Your task to perform on an android device: manage bookmarks in the chrome app Image 0: 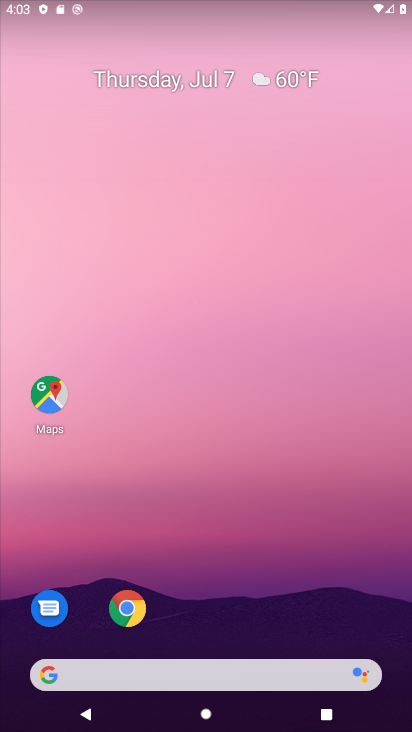
Step 0: click (330, 553)
Your task to perform on an android device: manage bookmarks in the chrome app Image 1: 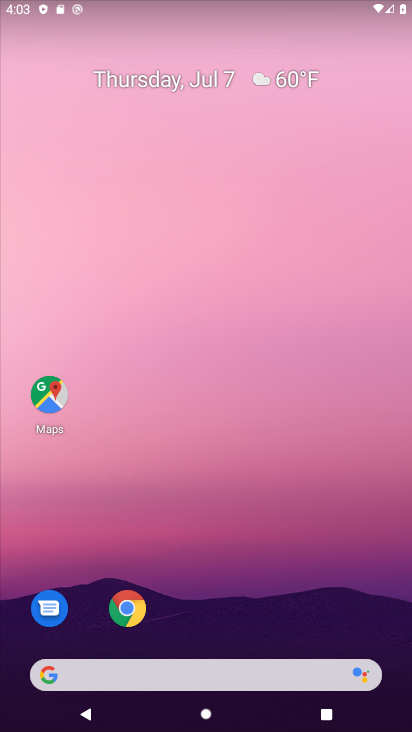
Step 1: click (138, 609)
Your task to perform on an android device: manage bookmarks in the chrome app Image 2: 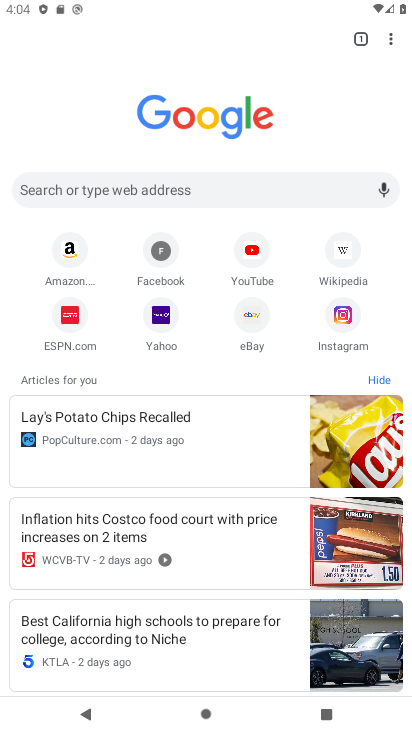
Step 2: click (397, 35)
Your task to perform on an android device: manage bookmarks in the chrome app Image 3: 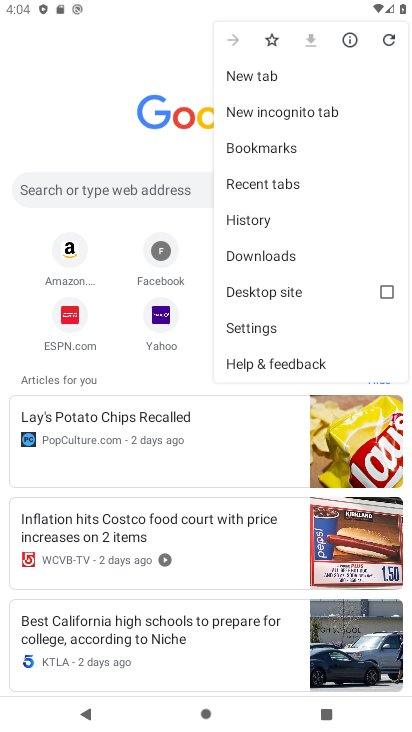
Step 3: click (300, 146)
Your task to perform on an android device: manage bookmarks in the chrome app Image 4: 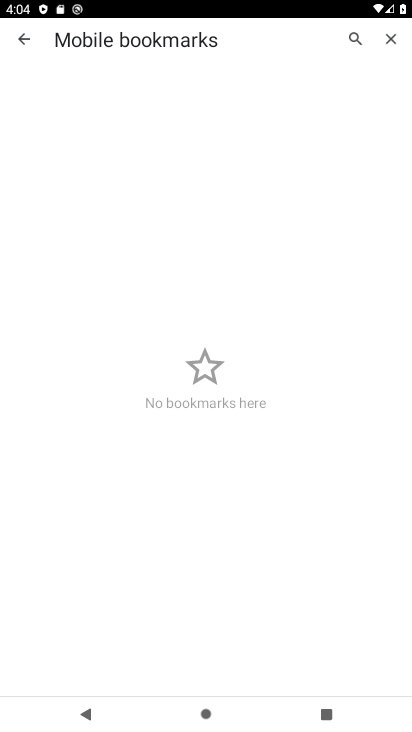
Step 4: task complete